Your task to perform on an android device: Open Reddit.com Image 0: 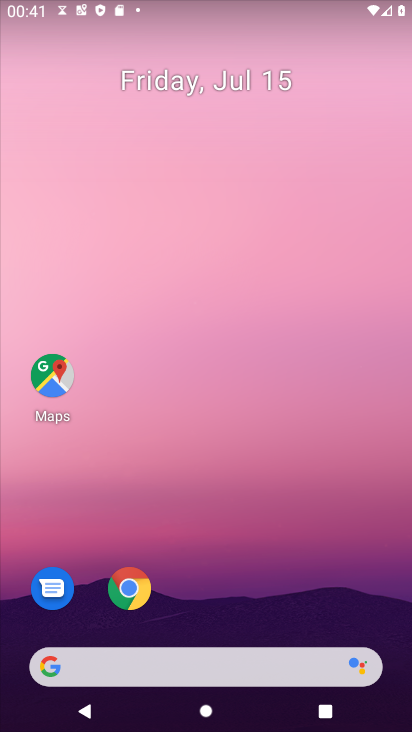
Step 0: click (127, 599)
Your task to perform on an android device: Open Reddit.com Image 1: 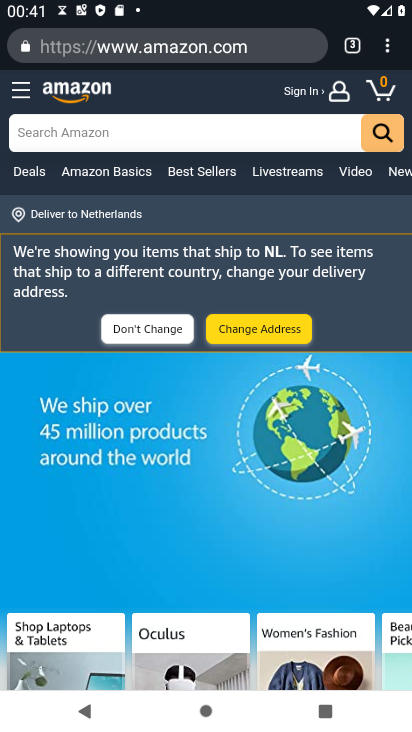
Step 1: click (360, 41)
Your task to perform on an android device: Open Reddit.com Image 2: 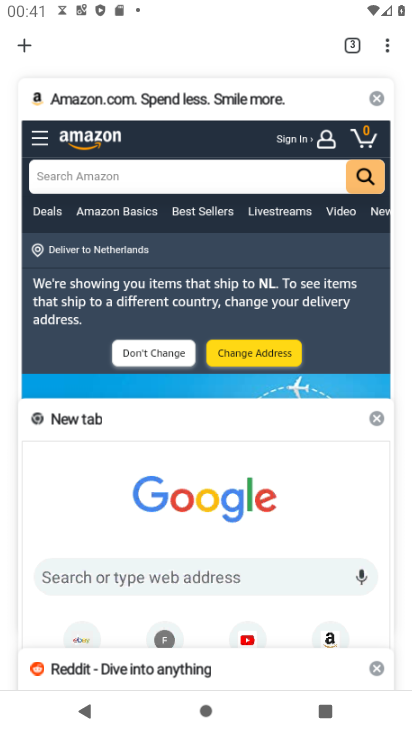
Step 2: click (82, 652)
Your task to perform on an android device: Open Reddit.com Image 3: 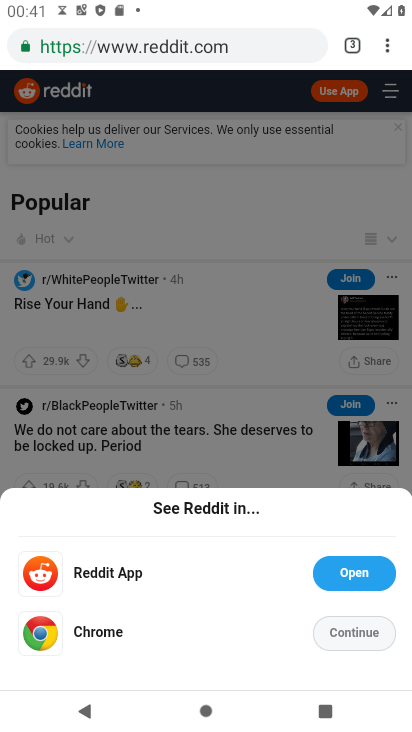
Step 3: task complete